Your task to perform on an android device: Go to CNN.com Image 0: 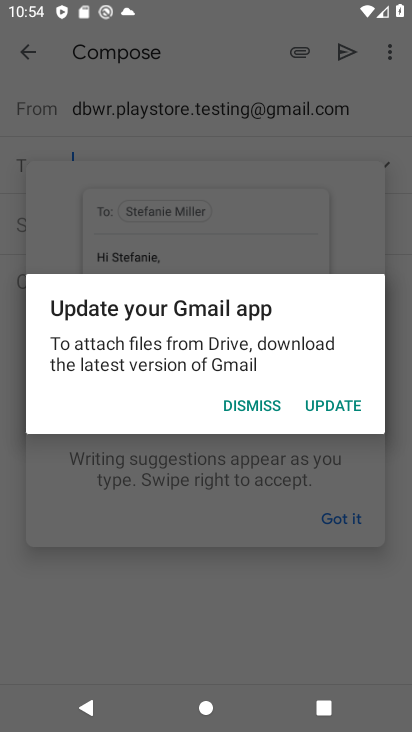
Step 0: press home button
Your task to perform on an android device: Go to CNN.com Image 1: 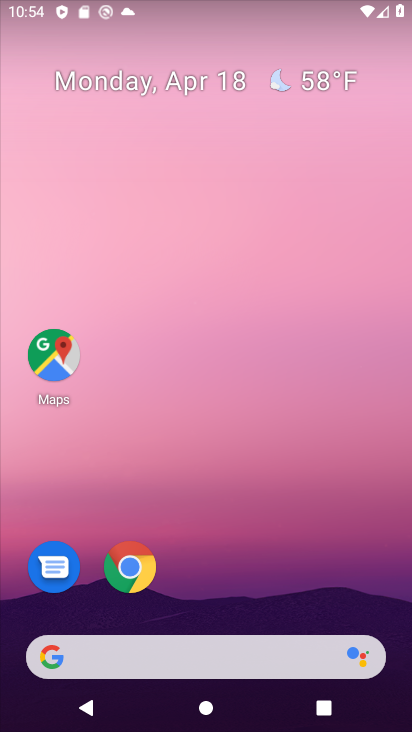
Step 1: click (130, 578)
Your task to perform on an android device: Go to CNN.com Image 2: 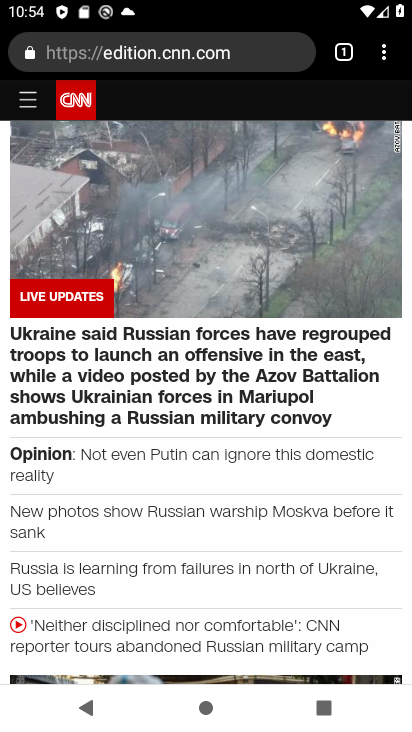
Step 2: task complete